Your task to perform on an android device: toggle airplane mode Image 0: 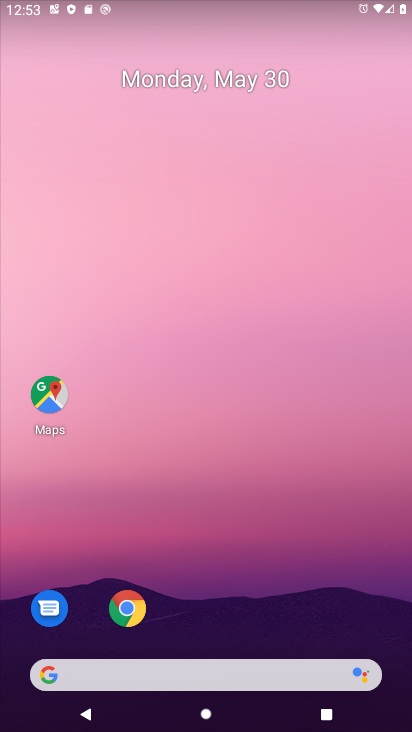
Step 0: drag from (202, 562) to (201, 136)
Your task to perform on an android device: toggle airplane mode Image 1: 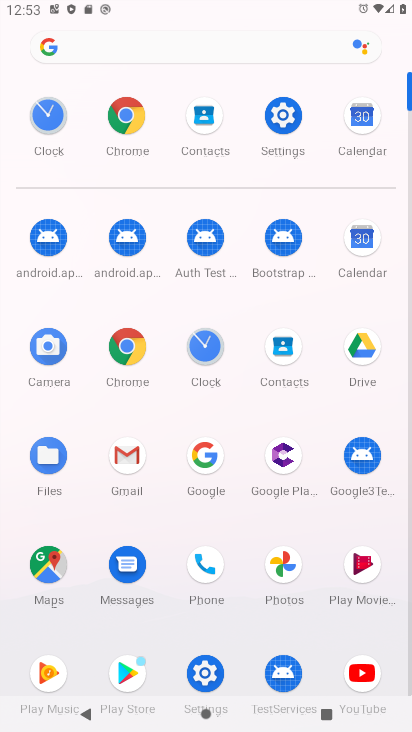
Step 1: click (292, 111)
Your task to perform on an android device: toggle airplane mode Image 2: 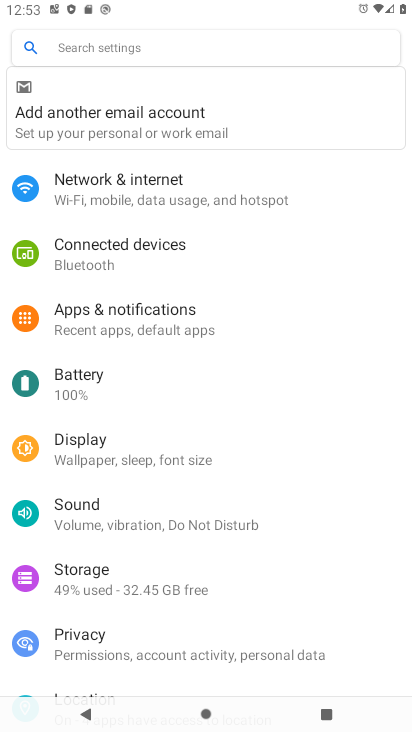
Step 2: click (110, 176)
Your task to perform on an android device: toggle airplane mode Image 3: 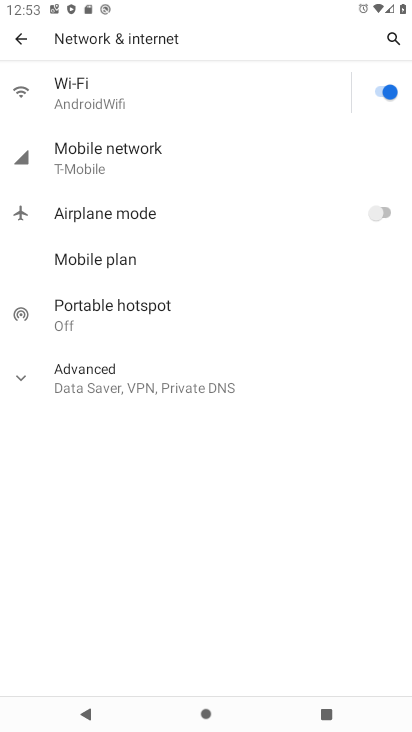
Step 3: click (372, 209)
Your task to perform on an android device: toggle airplane mode Image 4: 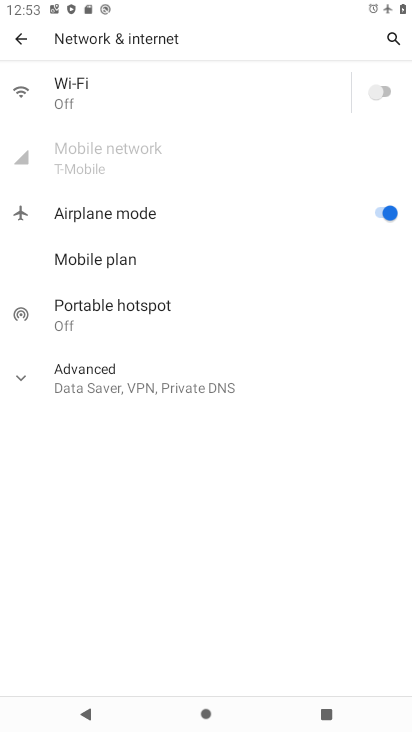
Step 4: task complete